Your task to perform on an android device: Show me productivity apps on the Play Store Image 0: 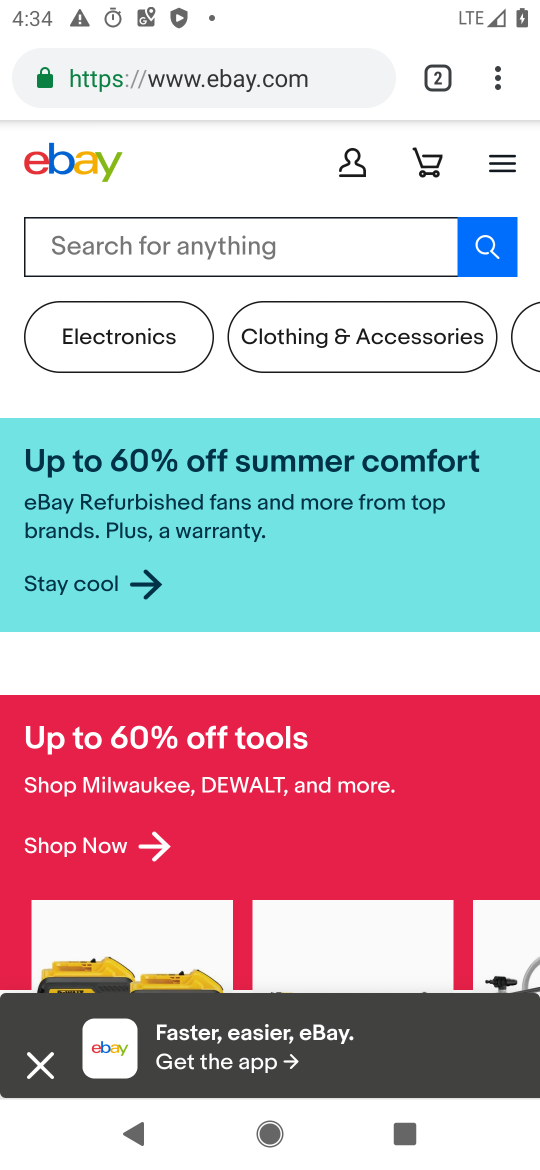
Step 0: press home button
Your task to perform on an android device: Show me productivity apps on the Play Store Image 1: 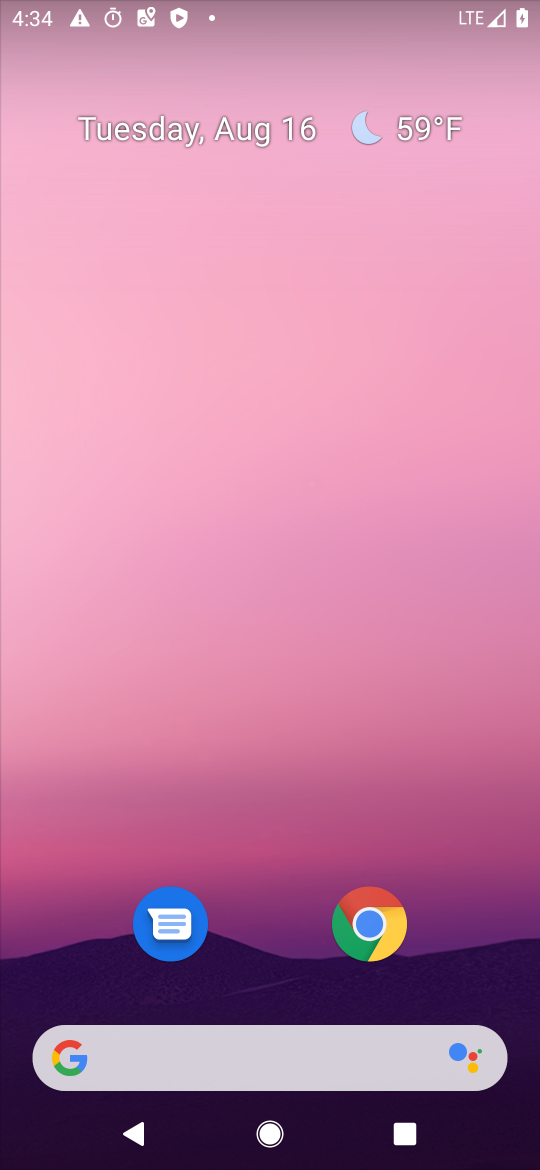
Step 1: drag from (258, 992) to (266, 331)
Your task to perform on an android device: Show me productivity apps on the Play Store Image 2: 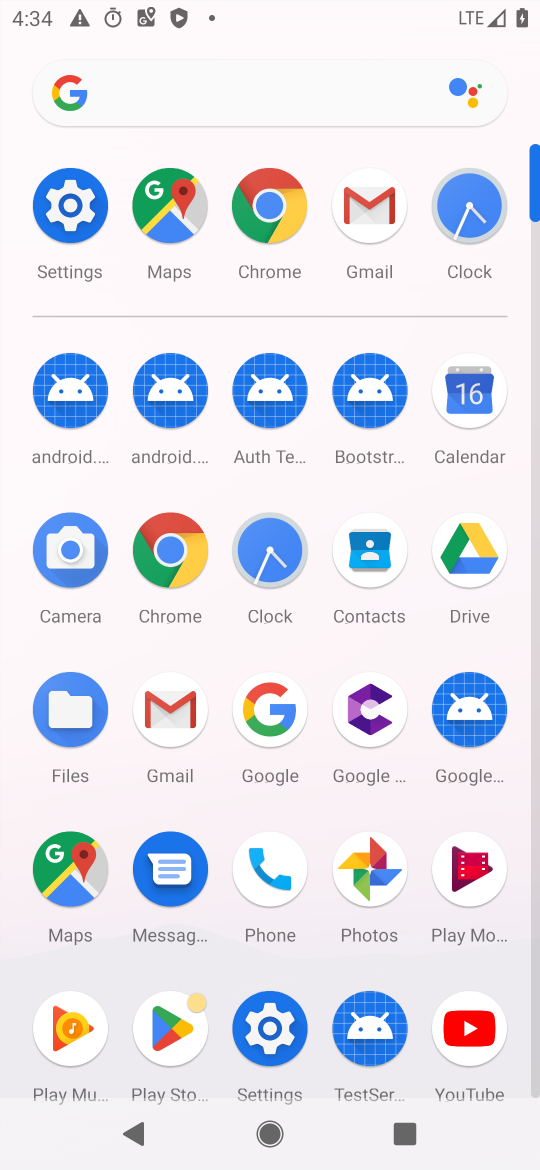
Step 2: click (163, 1047)
Your task to perform on an android device: Show me productivity apps on the Play Store Image 3: 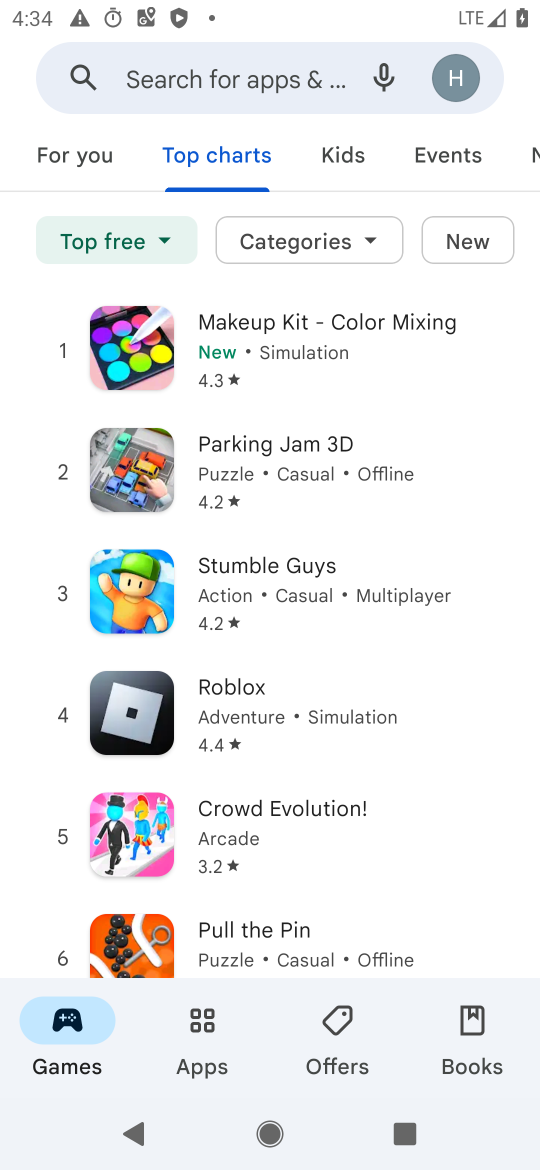
Step 3: click (194, 1034)
Your task to perform on an android device: Show me productivity apps on the Play Store Image 4: 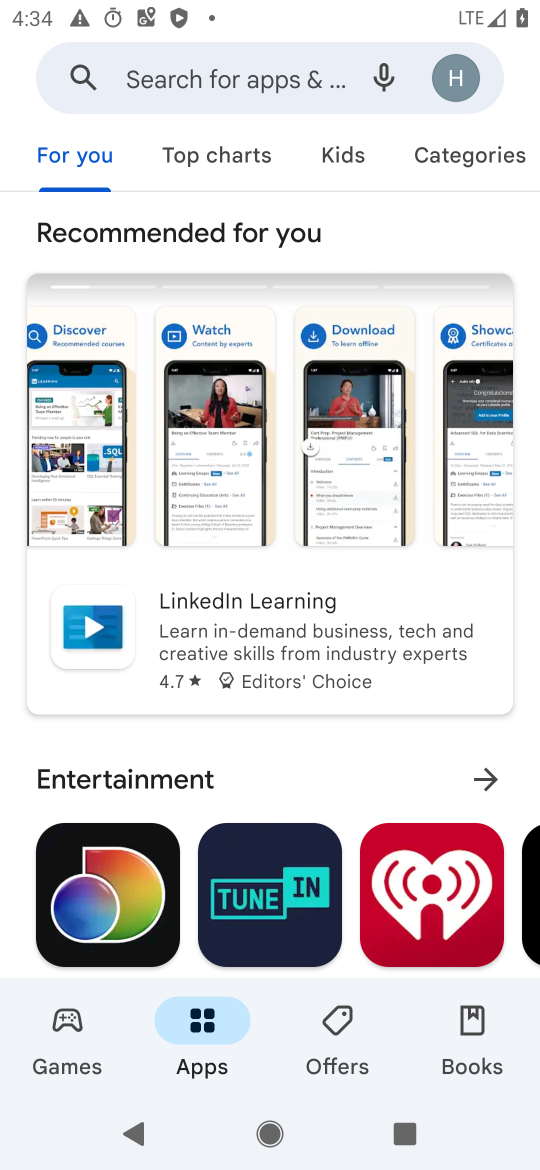
Step 4: click (445, 143)
Your task to perform on an android device: Show me productivity apps on the Play Store Image 5: 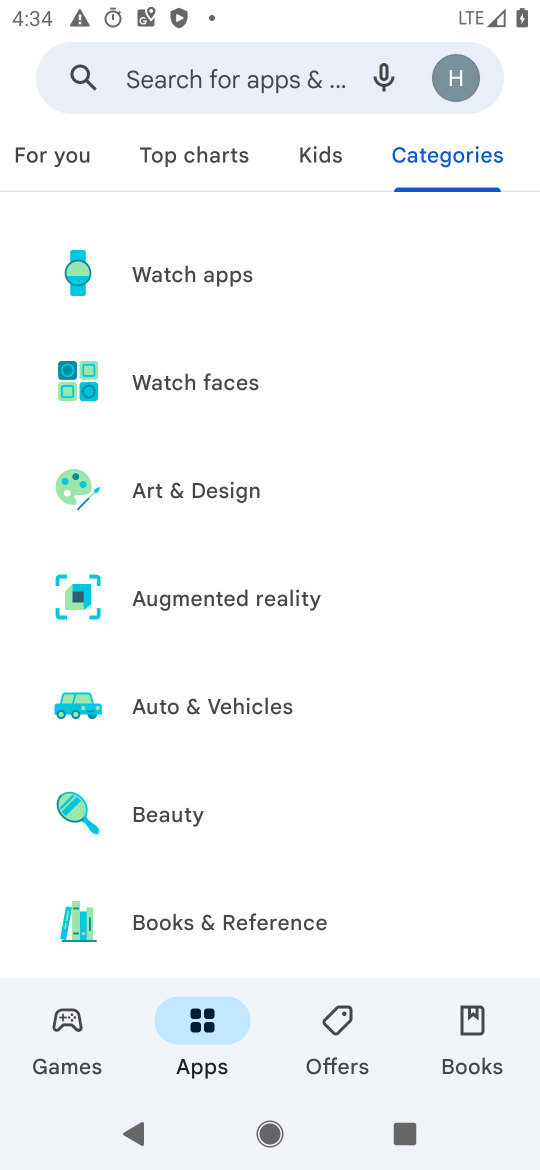
Step 5: drag from (161, 880) to (225, 218)
Your task to perform on an android device: Show me productivity apps on the Play Store Image 6: 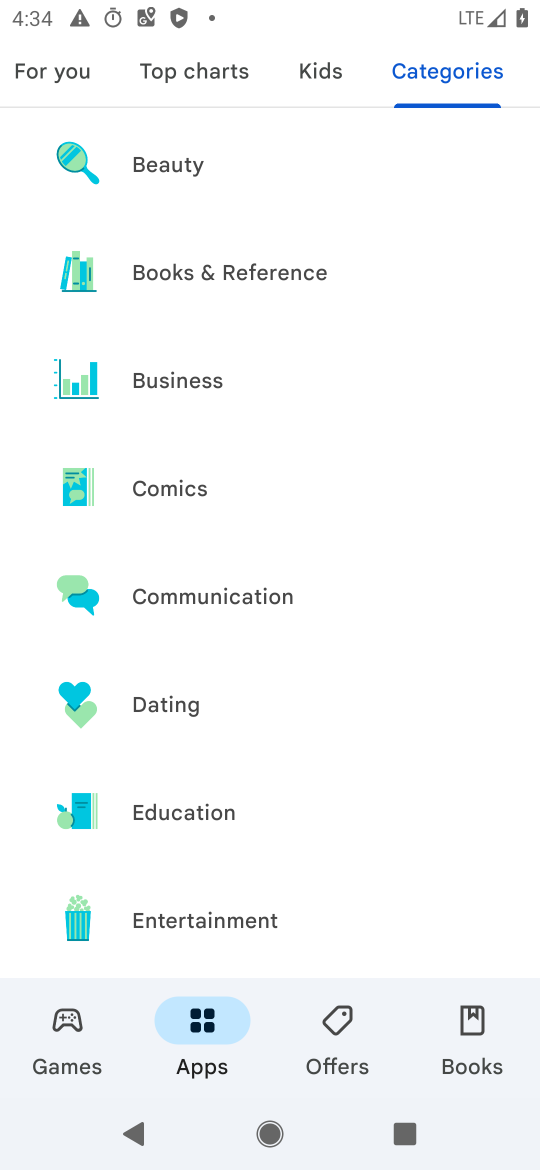
Step 6: drag from (140, 870) to (235, 104)
Your task to perform on an android device: Show me productivity apps on the Play Store Image 7: 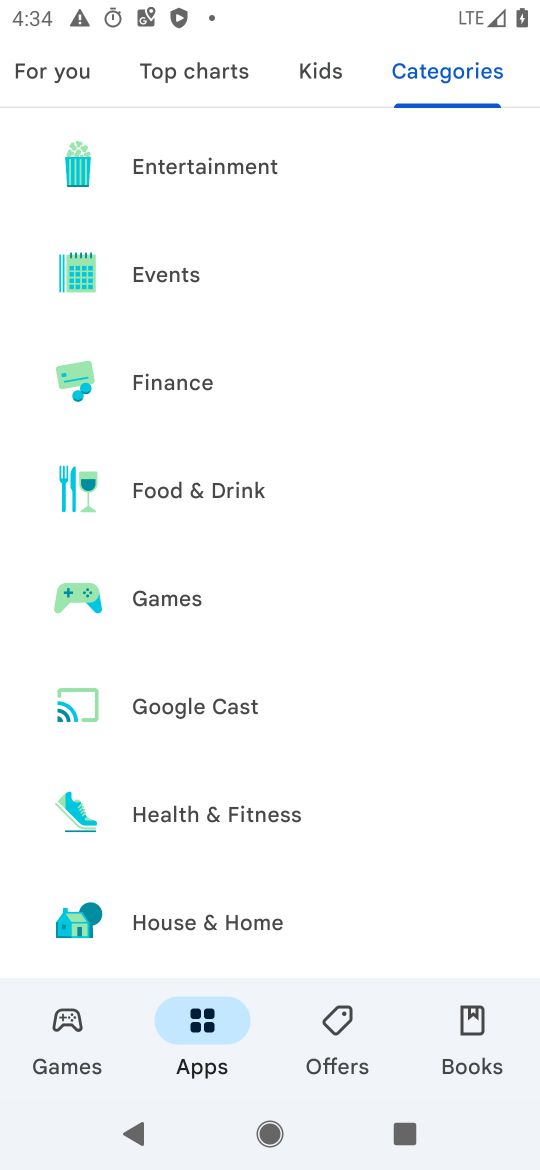
Step 7: drag from (173, 862) to (244, 145)
Your task to perform on an android device: Show me productivity apps on the Play Store Image 8: 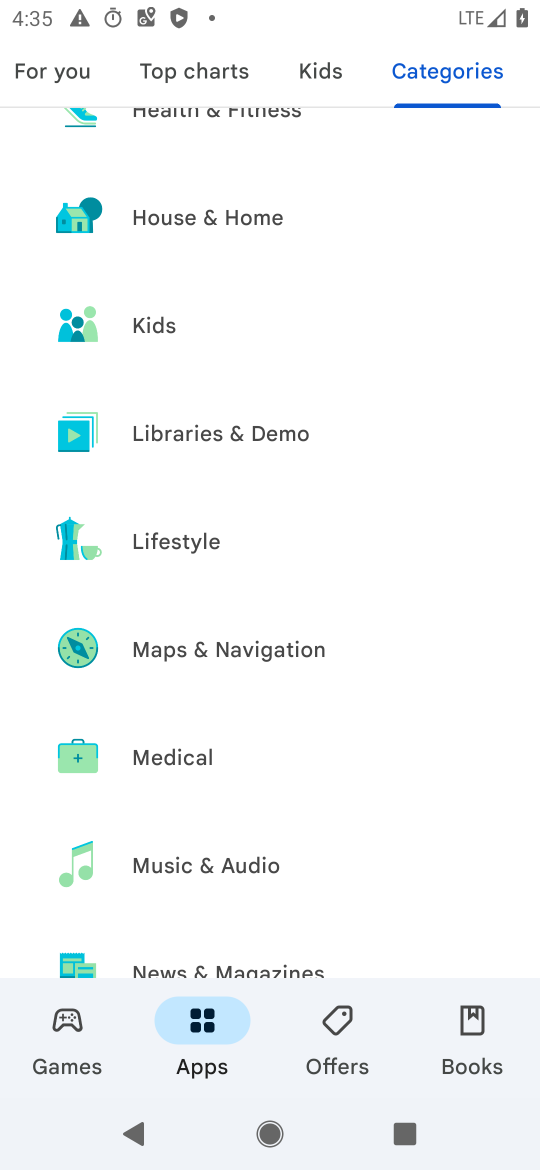
Step 8: drag from (125, 912) to (435, 216)
Your task to perform on an android device: Show me productivity apps on the Play Store Image 9: 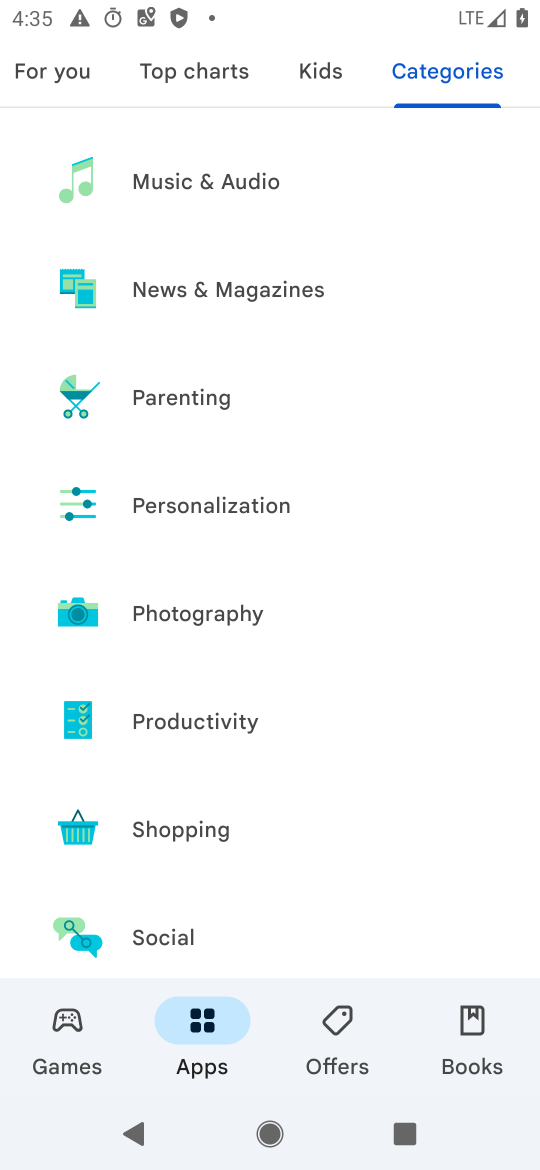
Step 9: click (278, 732)
Your task to perform on an android device: Show me productivity apps on the Play Store Image 10: 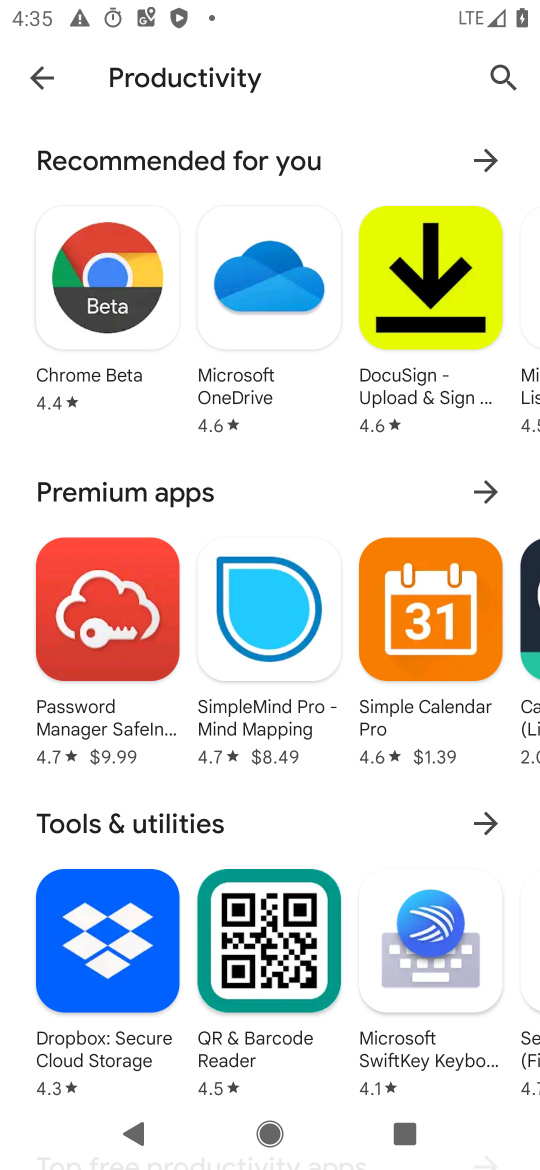
Step 10: task complete